Your task to perform on an android device: open a bookmark in the chrome app Image 0: 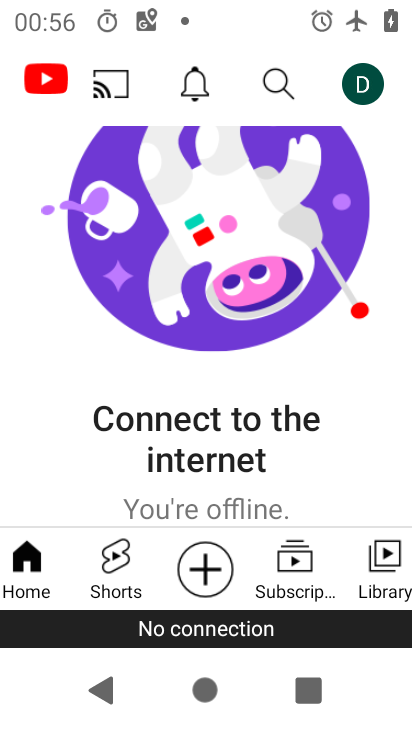
Step 0: press home button
Your task to perform on an android device: open a bookmark in the chrome app Image 1: 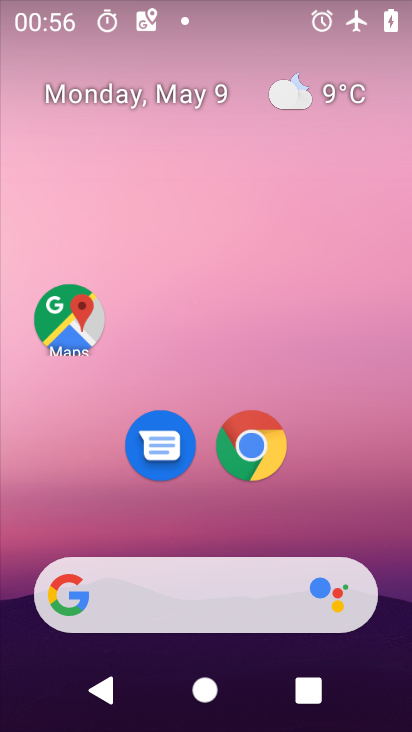
Step 1: click (261, 452)
Your task to perform on an android device: open a bookmark in the chrome app Image 2: 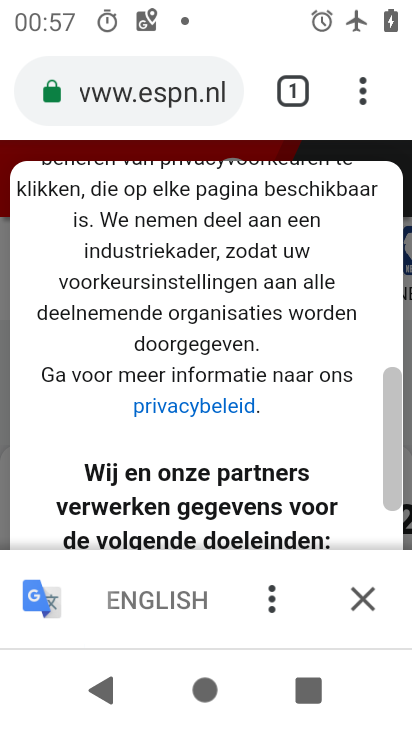
Step 2: click (362, 92)
Your task to perform on an android device: open a bookmark in the chrome app Image 3: 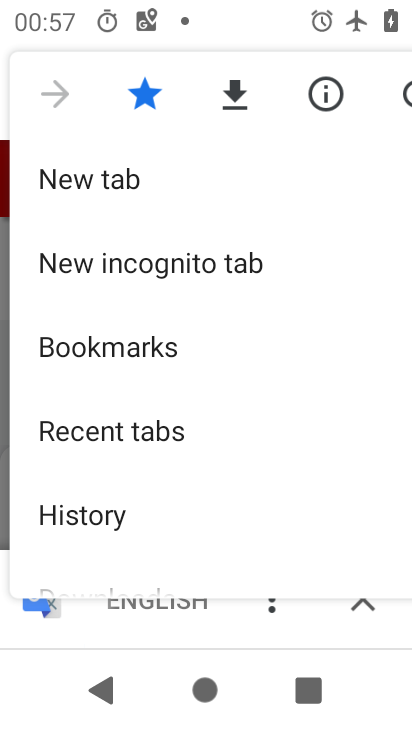
Step 3: click (94, 352)
Your task to perform on an android device: open a bookmark in the chrome app Image 4: 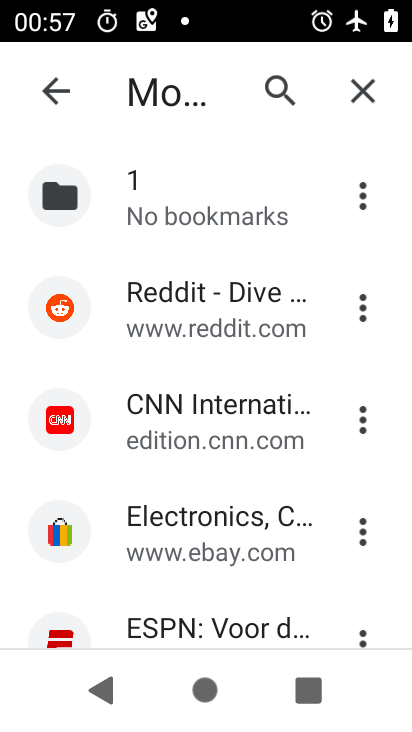
Step 4: click (197, 414)
Your task to perform on an android device: open a bookmark in the chrome app Image 5: 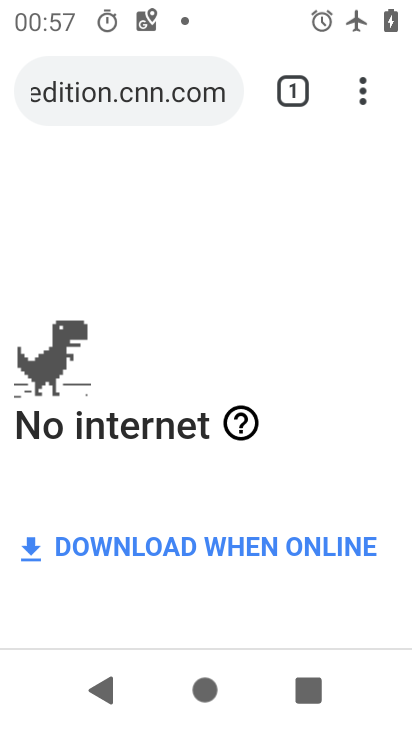
Step 5: task complete